Your task to perform on an android device: Is it going to rain this weekend? Image 0: 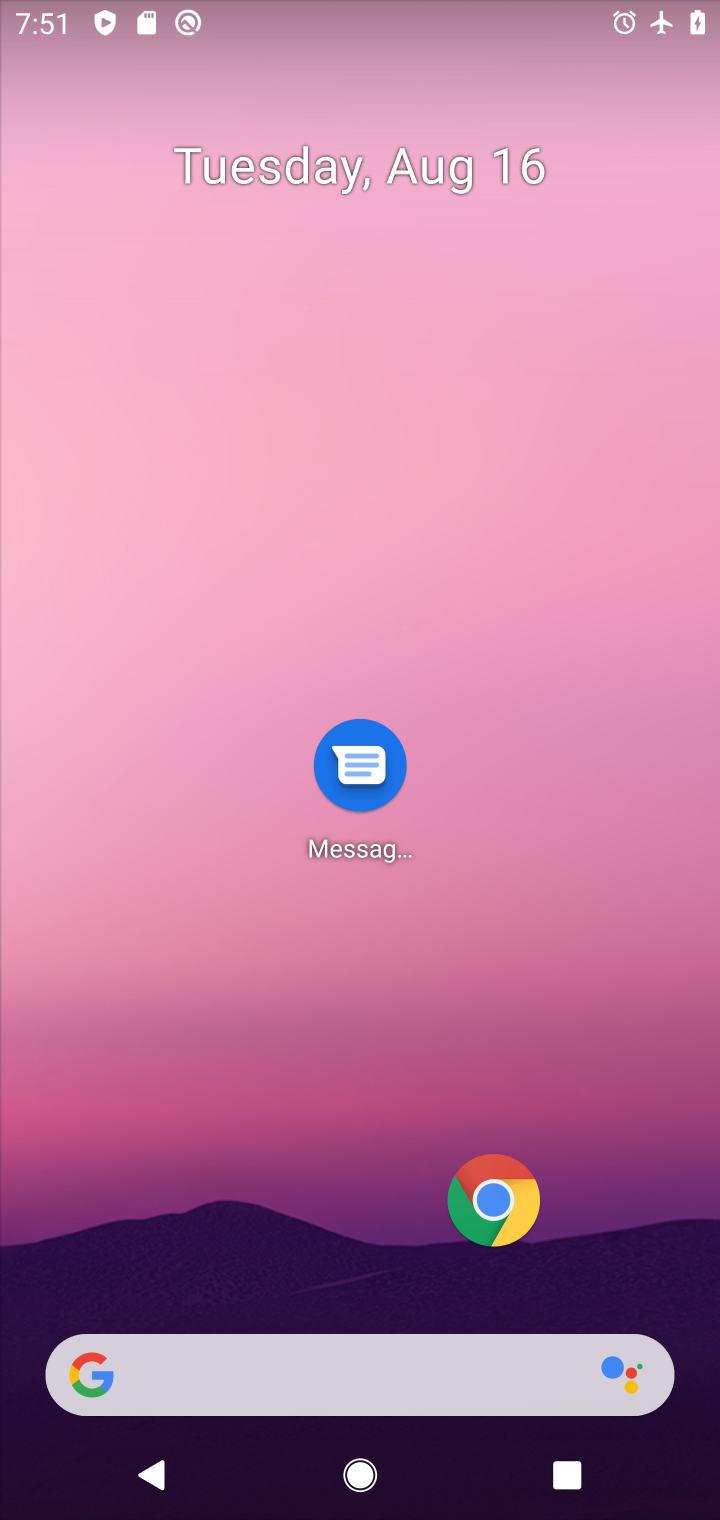
Step 0: click (236, 1366)
Your task to perform on an android device: Is it going to rain this weekend? Image 1: 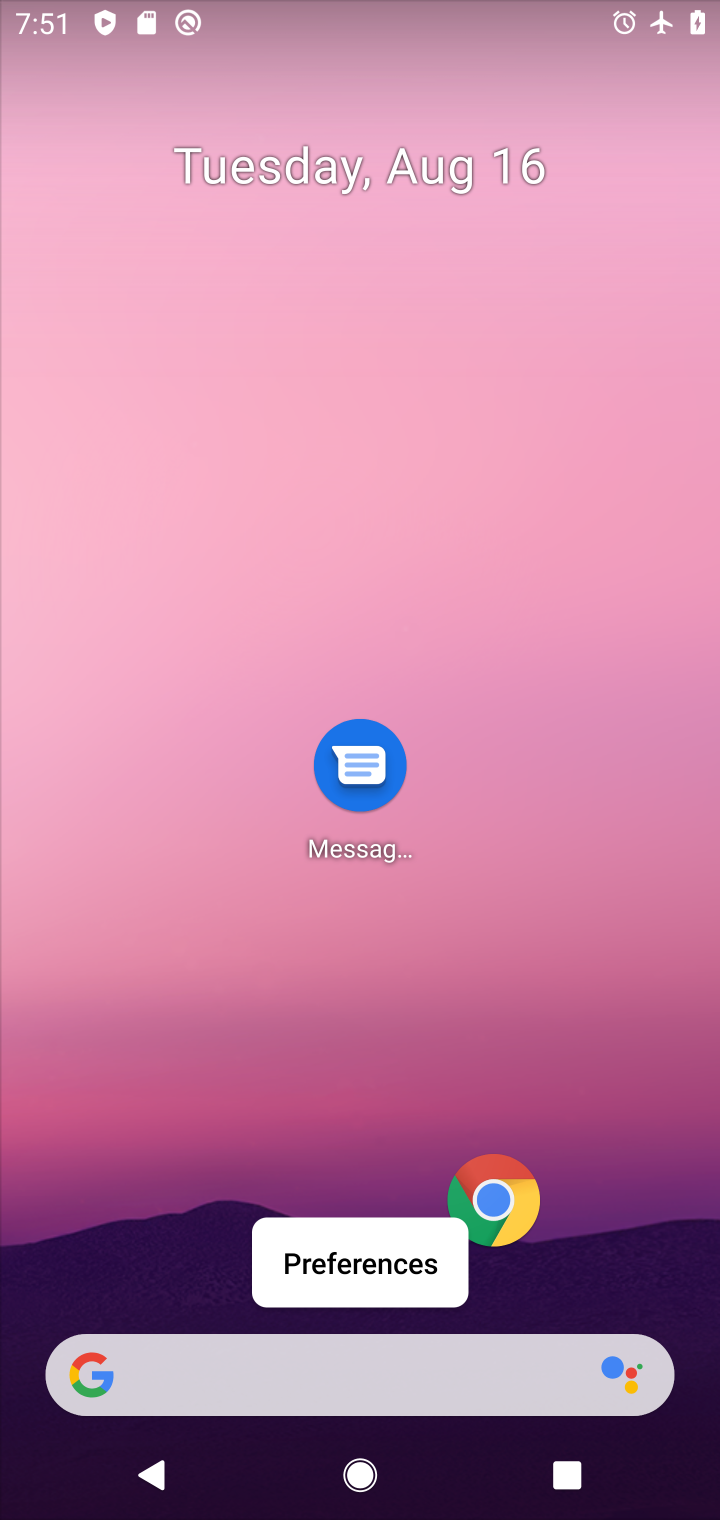
Step 1: click (198, 1370)
Your task to perform on an android device: Is it going to rain this weekend? Image 2: 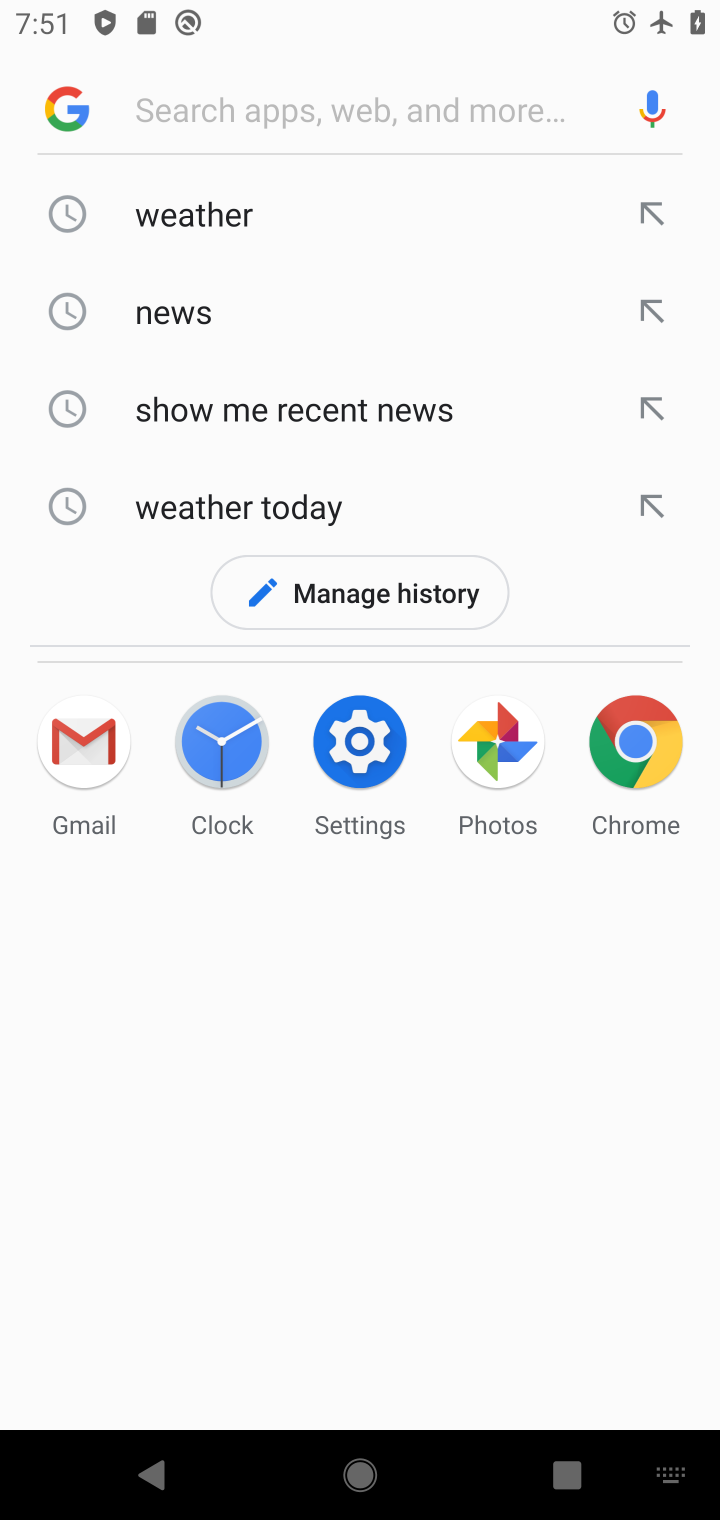
Step 2: type "Is it going to rain this weekend?"
Your task to perform on an android device: Is it going to rain this weekend? Image 3: 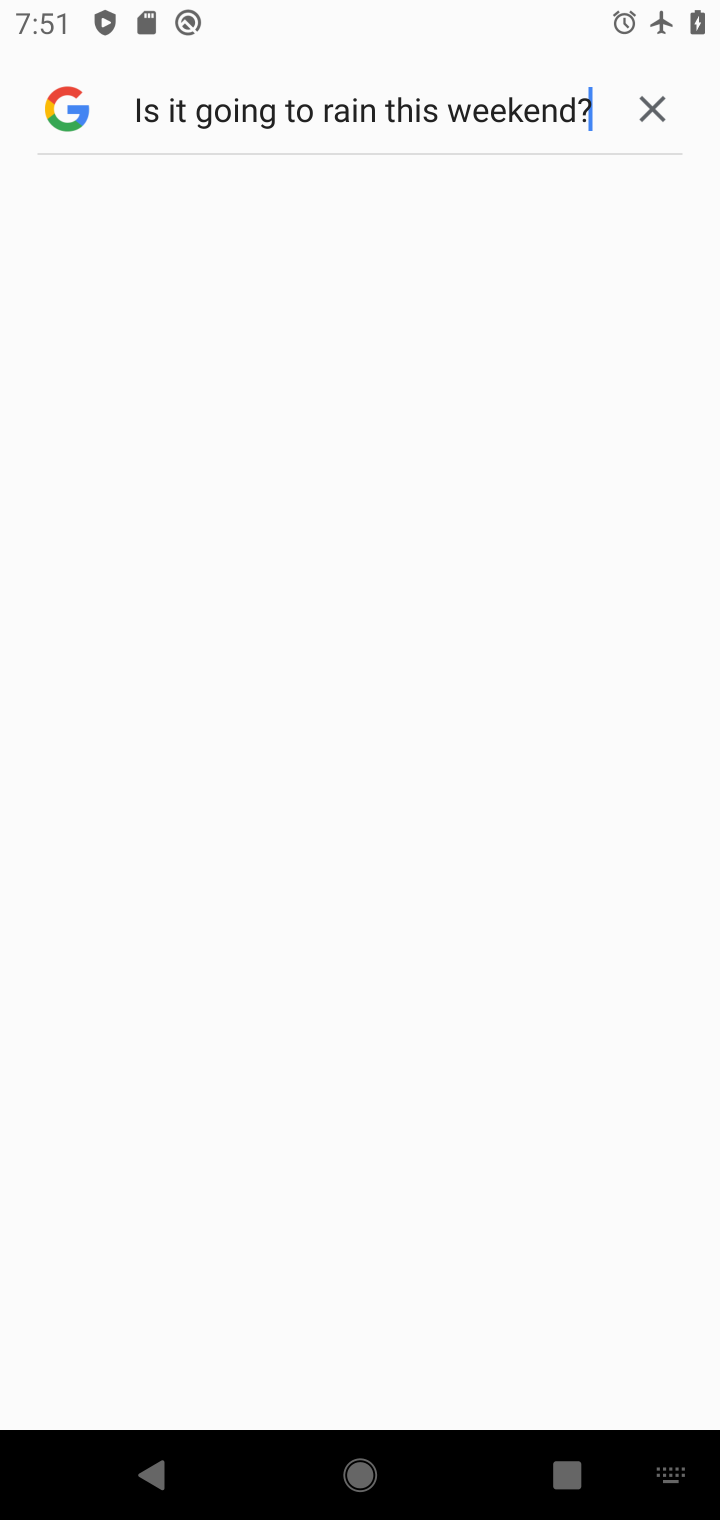
Step 3: type ""
Your task to perform on an android device: Is it going to rain this weekend? Image 4: 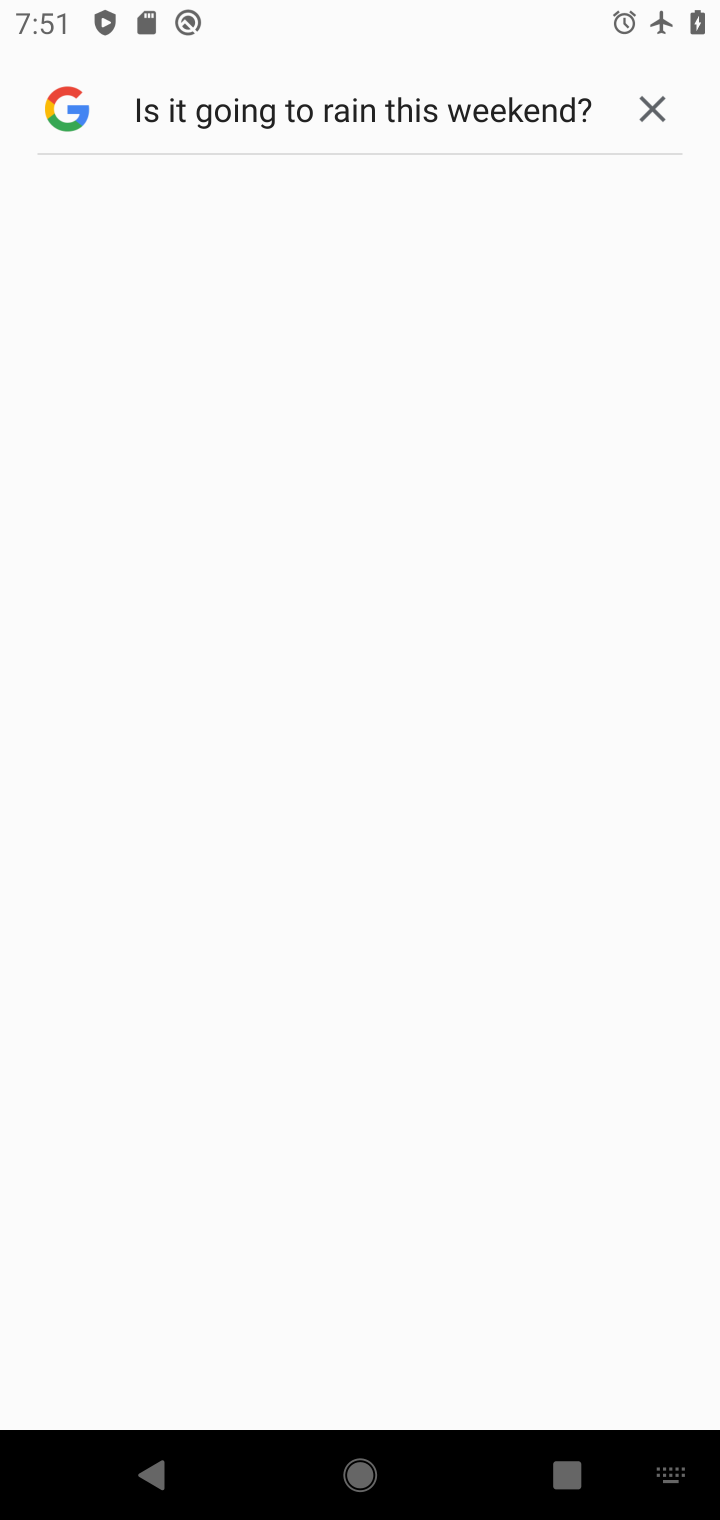
Step 4: type ""
Your task to perform on an android device: Is it going to rain this weekend? Image 5: 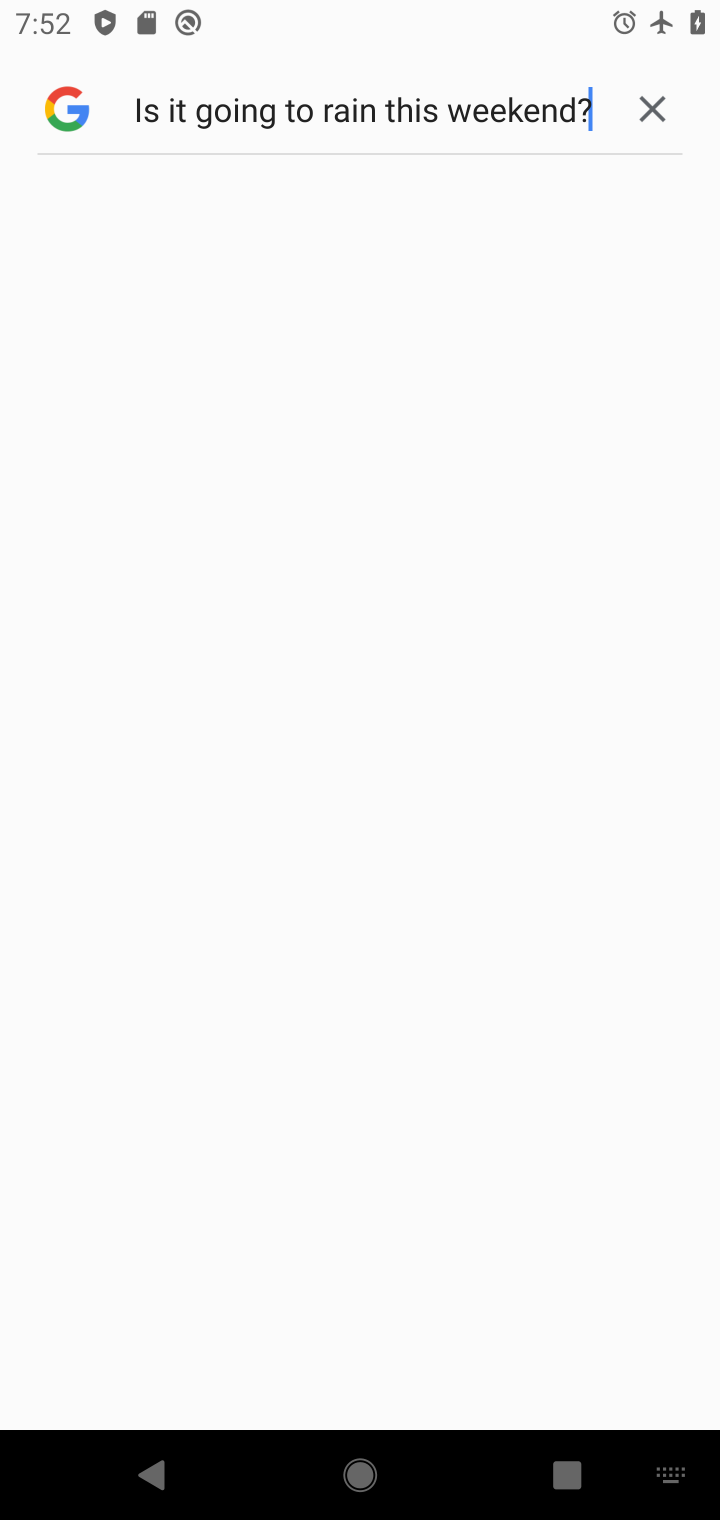
Step 5: drag from (546, 52) to (380, 1020)
Your task to perform on an android device: Is it going to rain this weekend? Image 6: 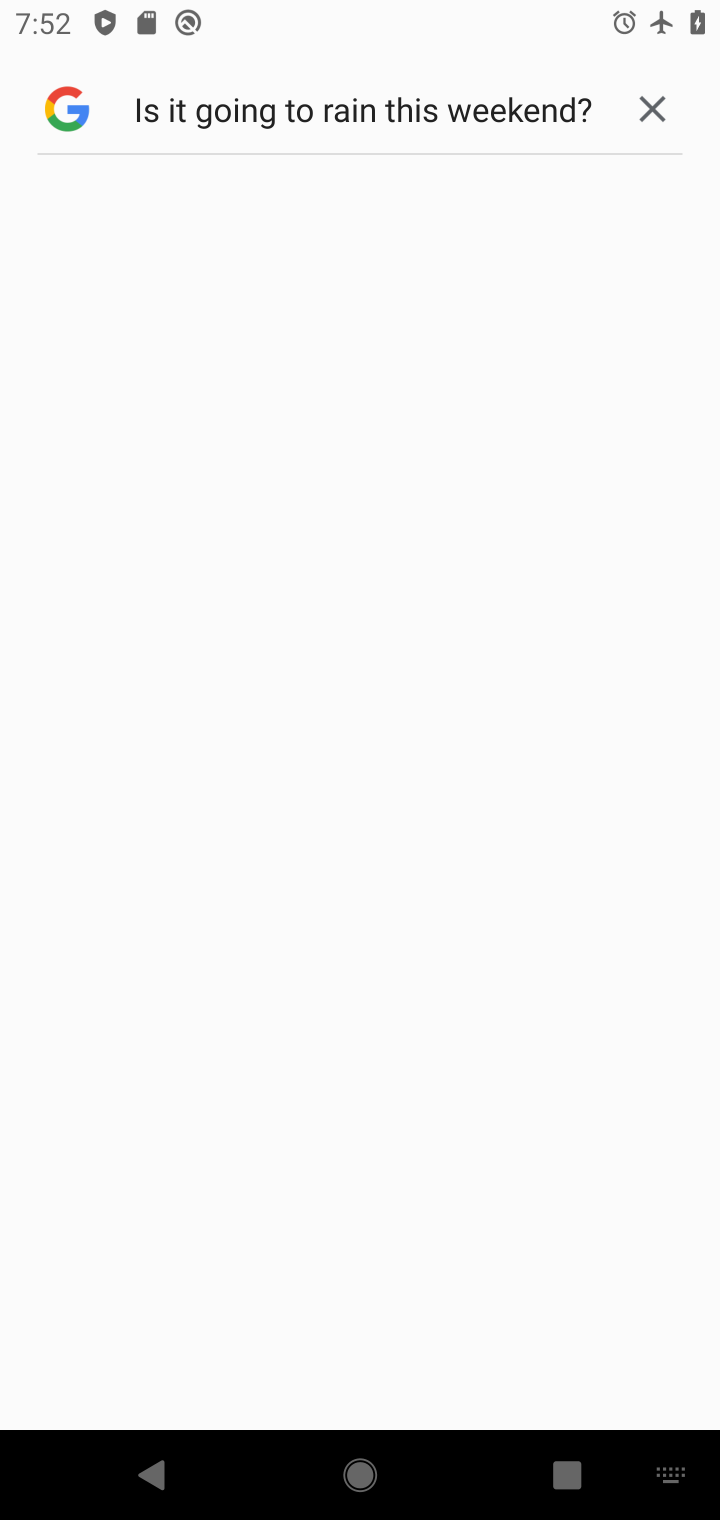
Step 6: drag from (330, 51) to (434, 1225)
Your task to perform on an android device: Is it going to rain this weekend? Image 7: 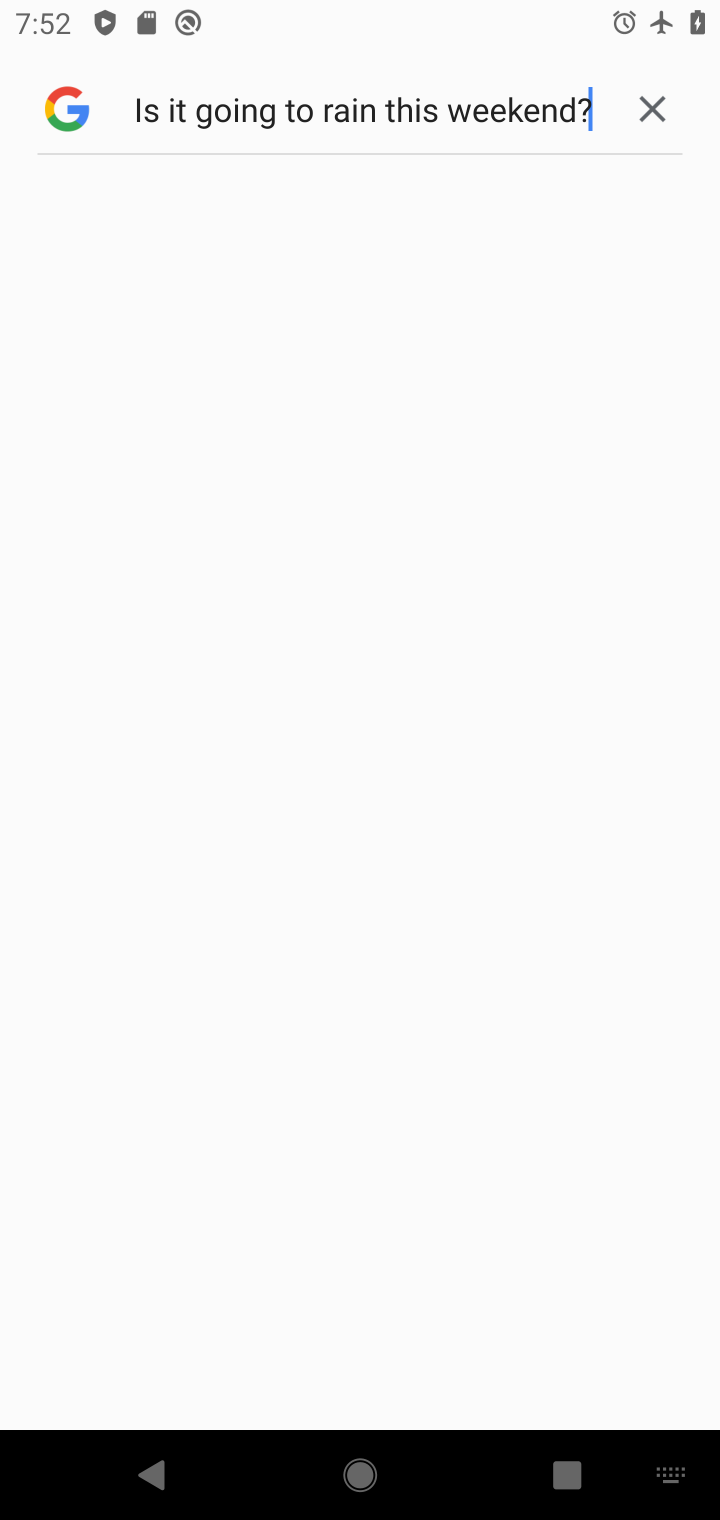
Step 7: drag from (289, 24) to (298, 1283)
Your task to perform on an android device: Is it going to rain this weekend? Image 8: 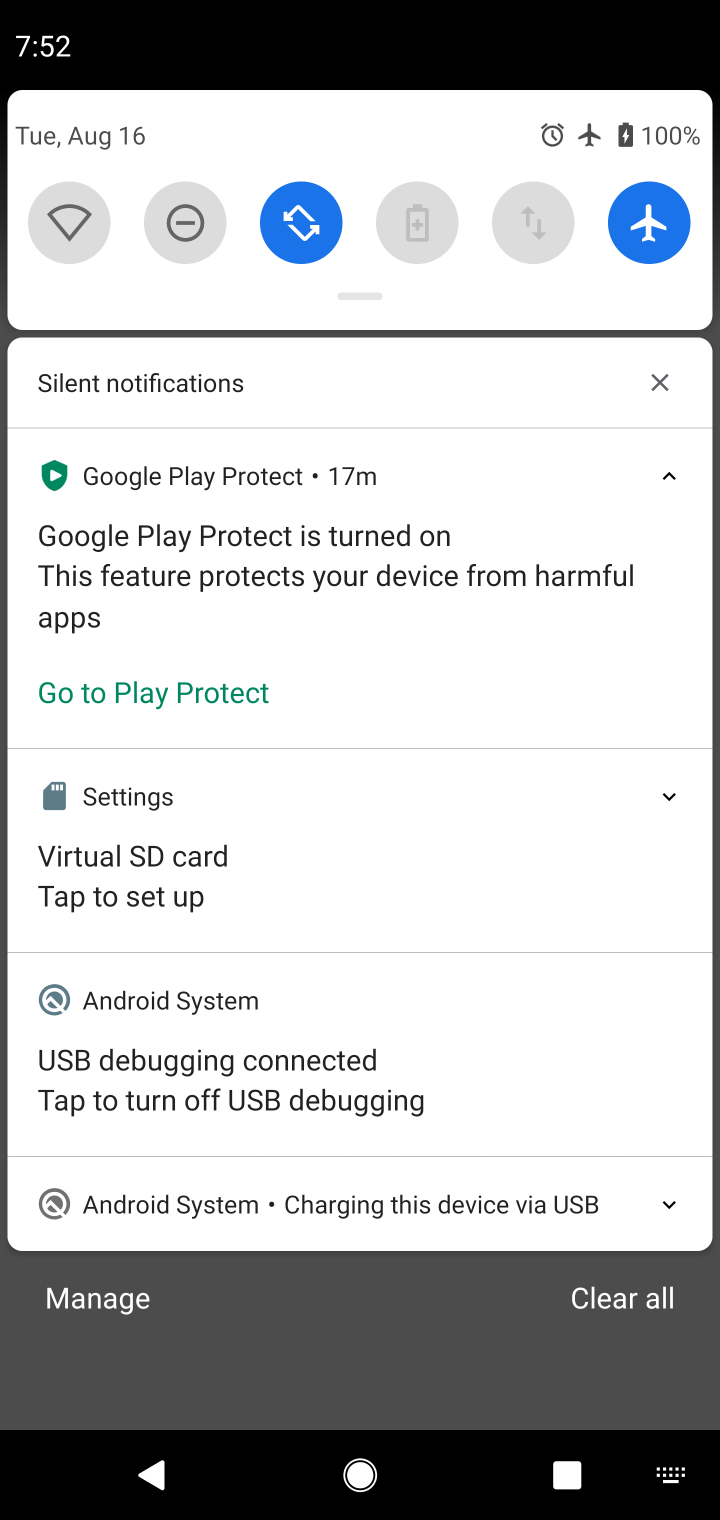
Step 8: click (671, 226)
Your task to perform on an android device: Is it going to rain this weekend? Image 9: 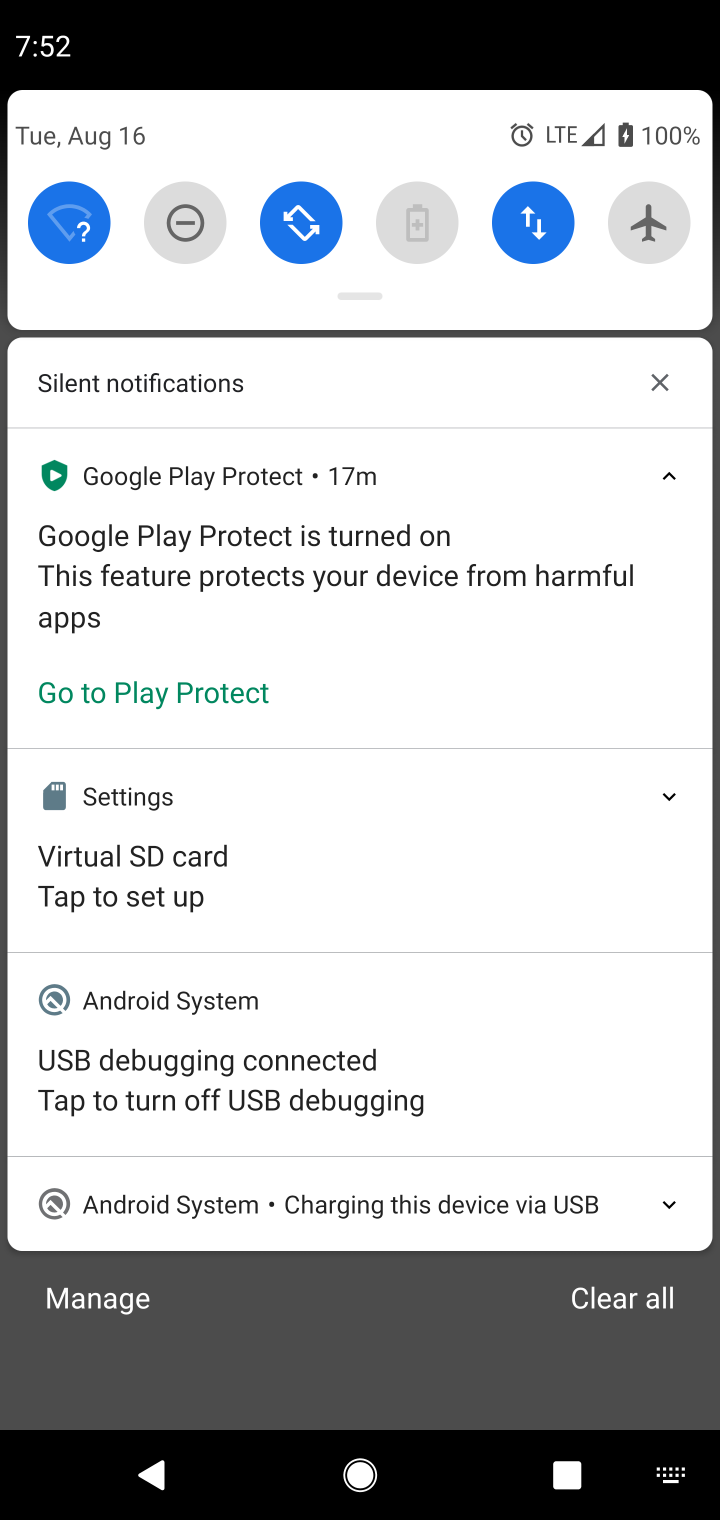
Step 9: click (599, 1306)
Your task to perform on an android device: Is it going to rain this weekend? Image 10: 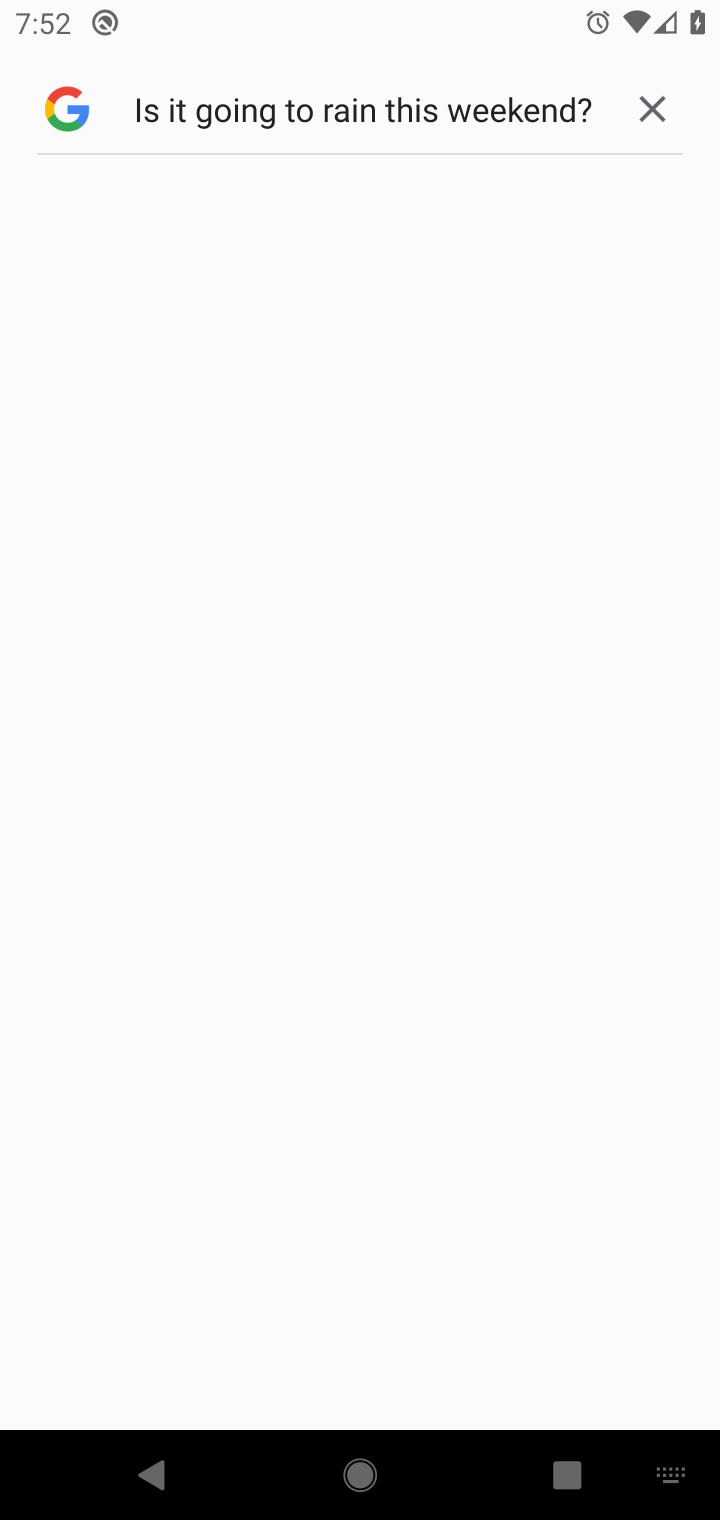
Step 10: task complete